Your task to perform on an android device: Show me recent news Image 0: 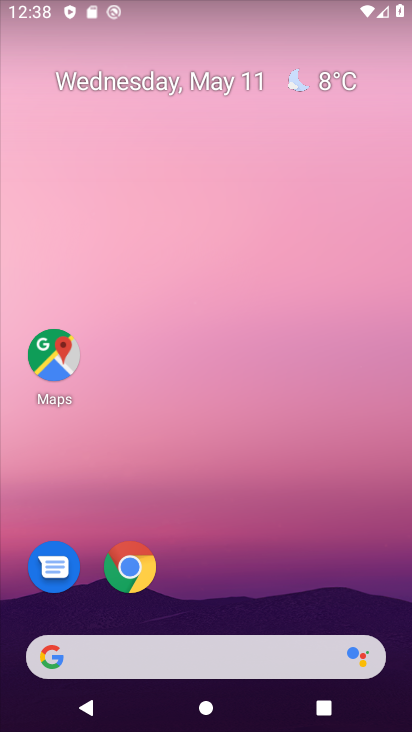
Step 0: click (193, 650)
Your task to perform on an android device: Show me recent news Image 1: 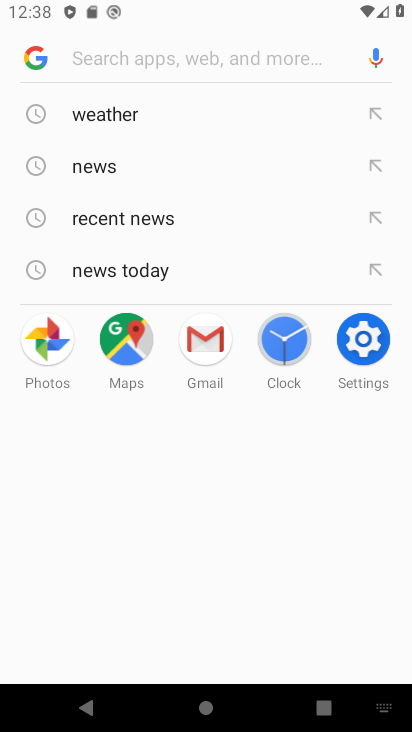
Step 1: type "recent news"
Your task to perform on an android device: Show me recent news Image 2: 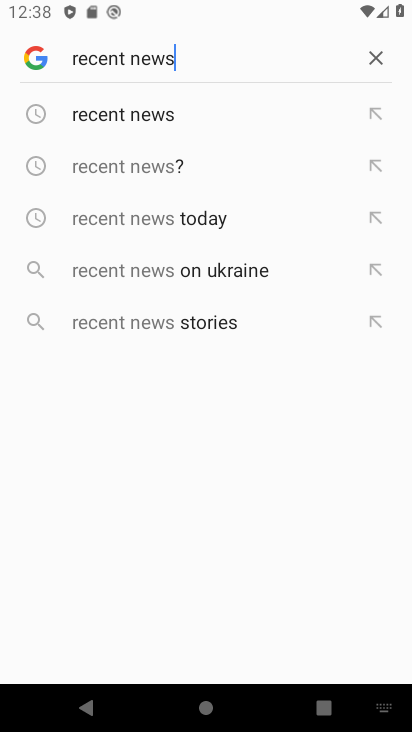
Step 2: click (167, 123)
Your task to perform on an android device: Show me recent news Image 3: 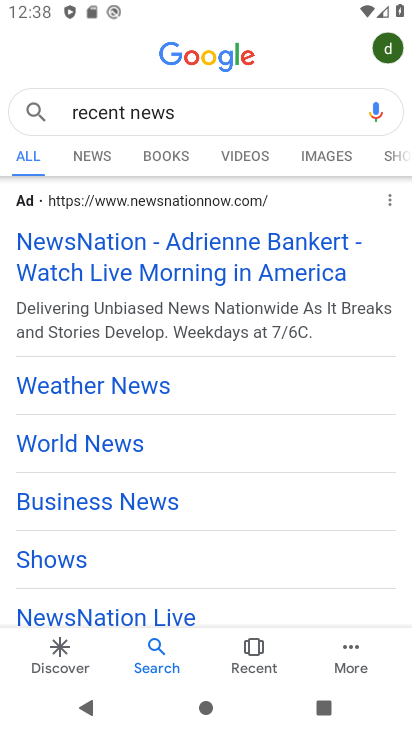
Step 3: click (77, 165)
Your task to perform on an android device: Show me recent news Image 4: 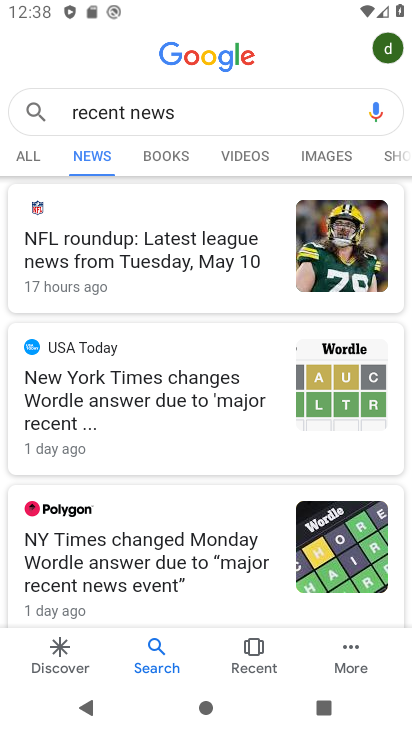
Step 4: task complete